Your task to perform on an android device: turn notification dots on Image 0: 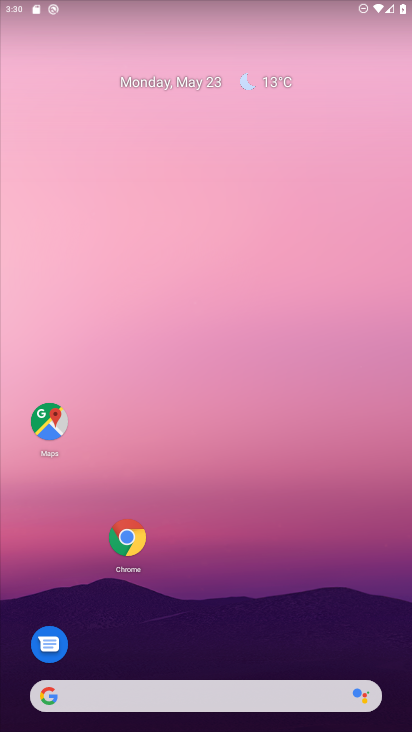
Step 0: drag from (326, 585) to (202, 60)
Your task to perform on an android device: turn notification dots on Image 1: 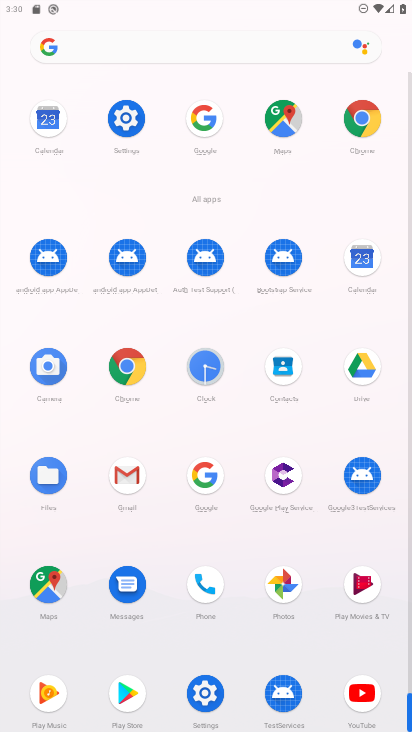
Step 1: click (130, 119)
Your task to perform on an android device: turn notification dots on Image 2: 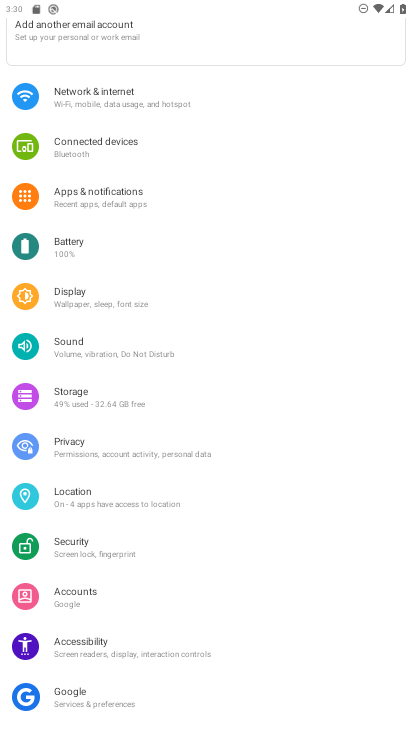
Step 2: click (133, 196)
Your task to perform on an android device: turn notification dots on Image 3: 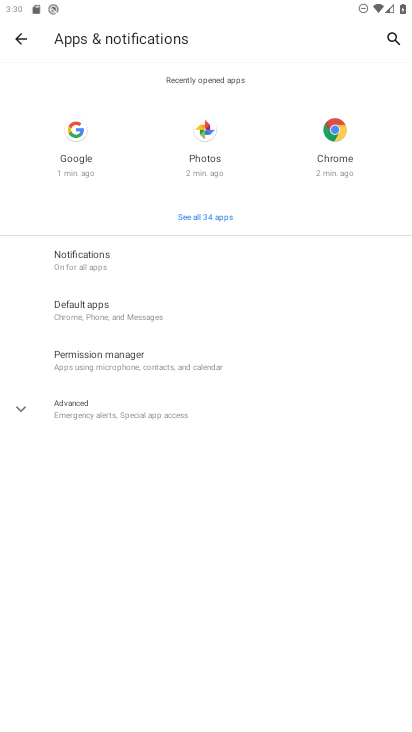
Step 3: click (105, 254)
Your task to perform on an android device: turn notification dots on Image 4: 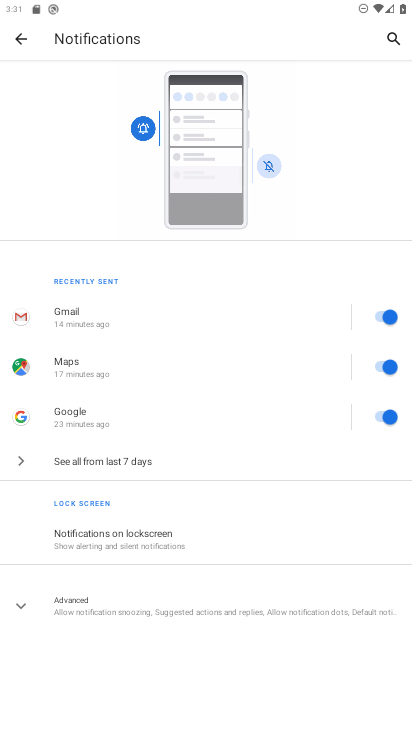
Step 4: click (103, 612)
Your task to perform on an android device: turn notification dots on Image 5: 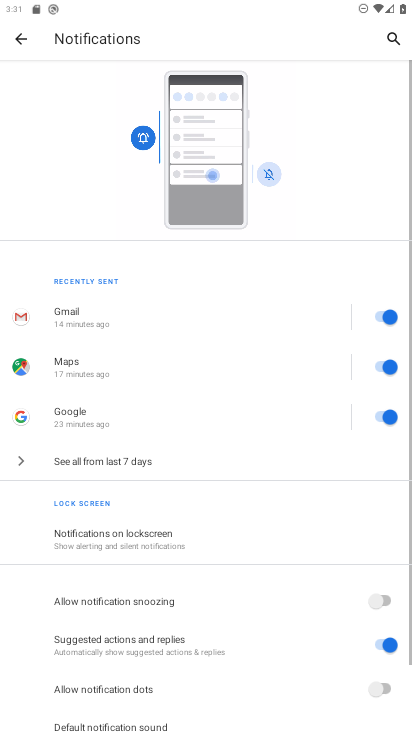
Step 5: drag from (193, 566) to (203, 156)
Your task to perform on an android device: turn notification dots on Image 6: 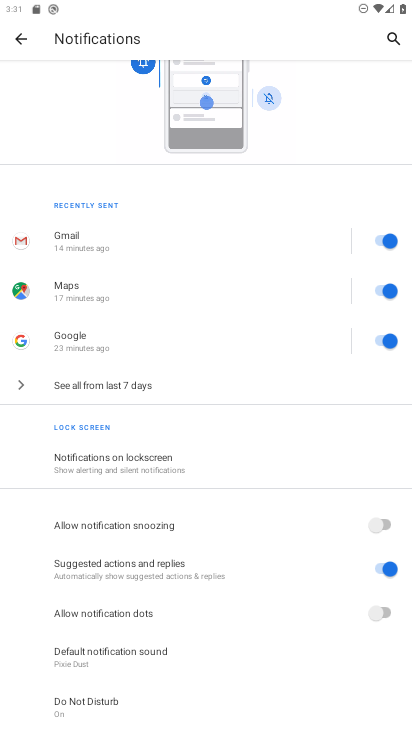
Step 6: click (394, 613)
Your task to perform on an android device: turn notification dots on Image 7: 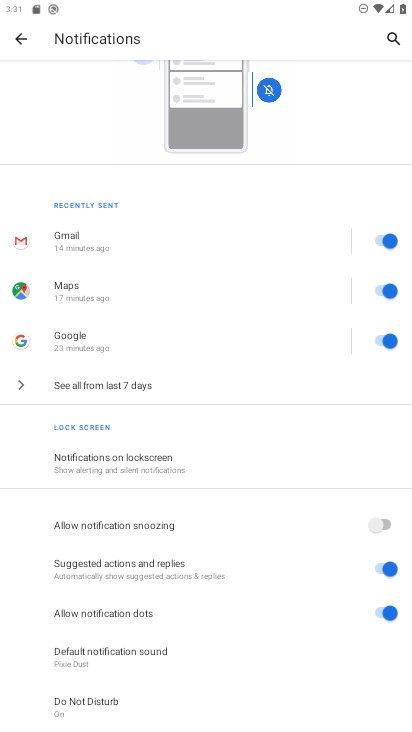
Step 7: task complete